Your task to perform on an android device: Open settings Image 0: 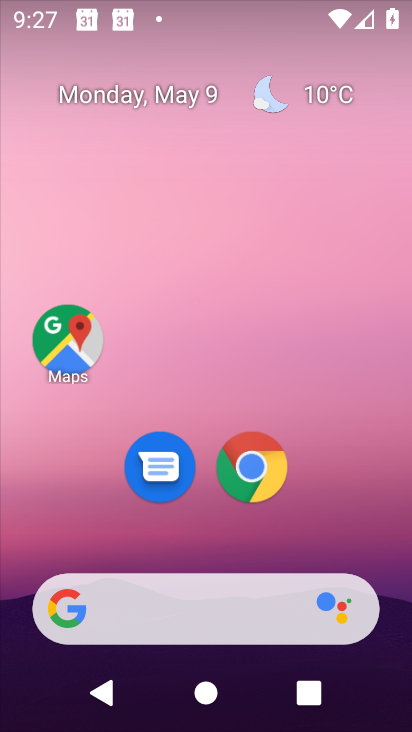
Step 0: drag from (392, 591) to (348, 7)
Your task to perform on an android device: Open settings Image 1: 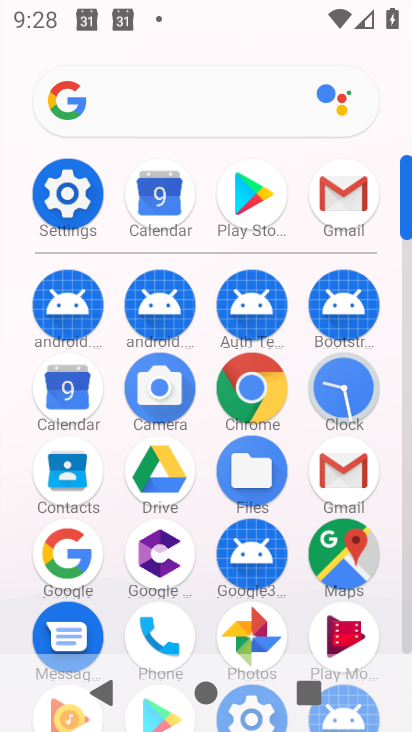
Step 1: click (75, 175)
Your task to perform on an android device: Open settings Image 2: 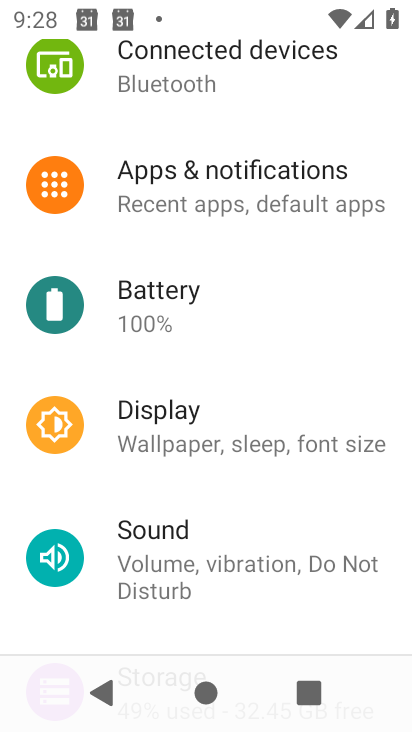
Step 2: task complete